Your task to perform on an android device: turn off location Image 0: 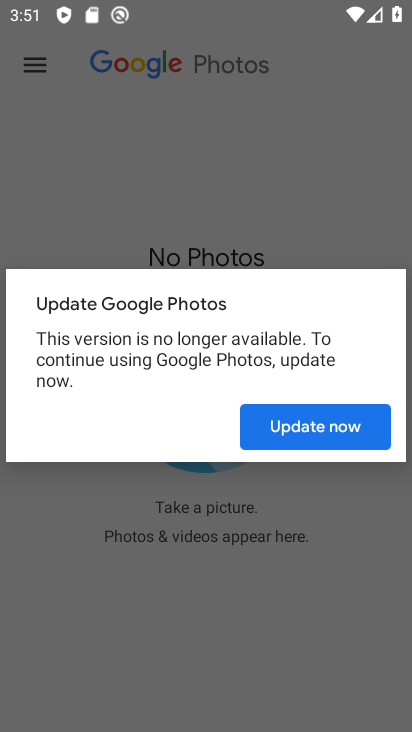
Step 0: press home button
Your task to perform on an android device: turn off location Image 1: 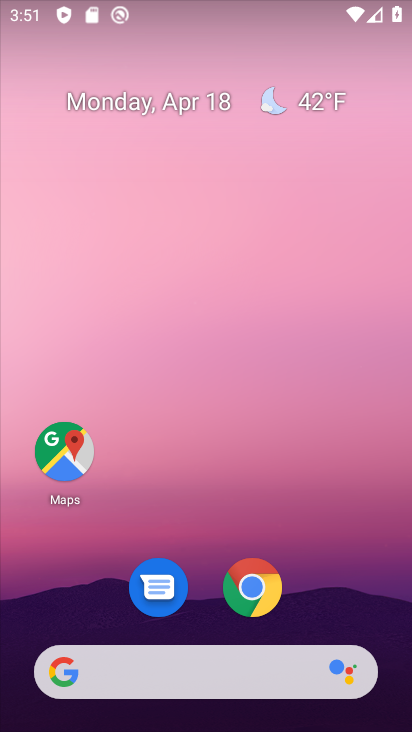
Step 1: drag from (211, 532) to (206, 65)
Your task to perform on an android device: turn off location Image 2: 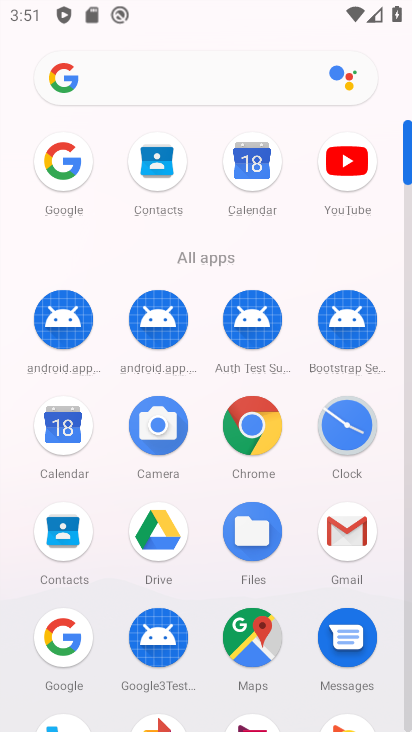
Step 2: drag from (223, 386) to (215, 257)
Your task to perform on an android device: turn off location Image 3: 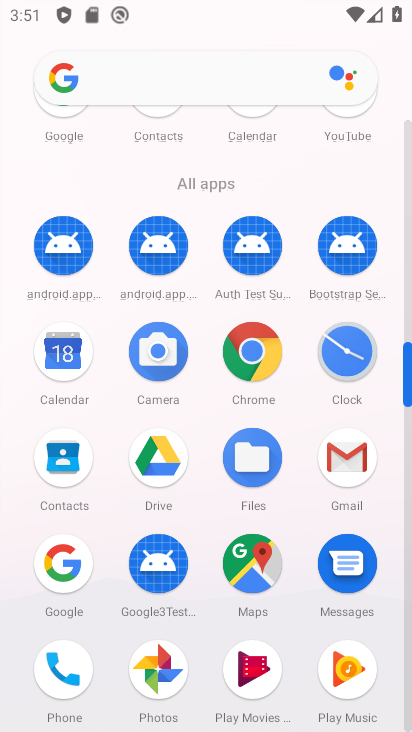
Step 3: drag from (205, 529) to (191, 252)
Your task to perform on an android device: turn off location Image 4: 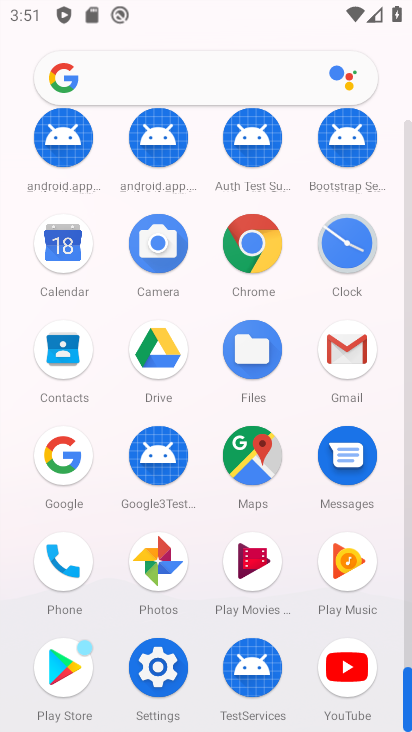
Step 4: click (169, 663)
Your task to perform on an android device: turn off location Image 5: 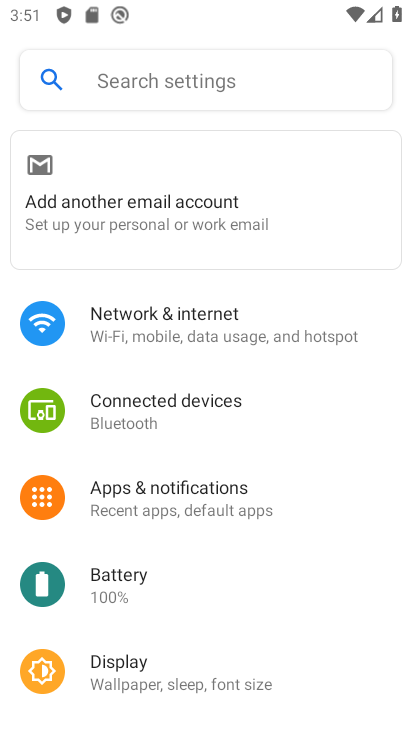
Step 5: drag from (258, 513) to (255, 239)
Your task to perform on an android device: turn off location Image 6: 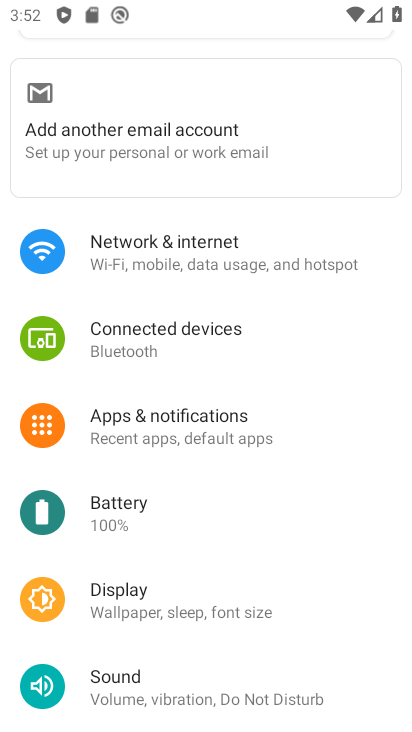
Step 6: drag from (269, 635) to (233, 197)
Your task to perform on an android device: turn off location Image 7: 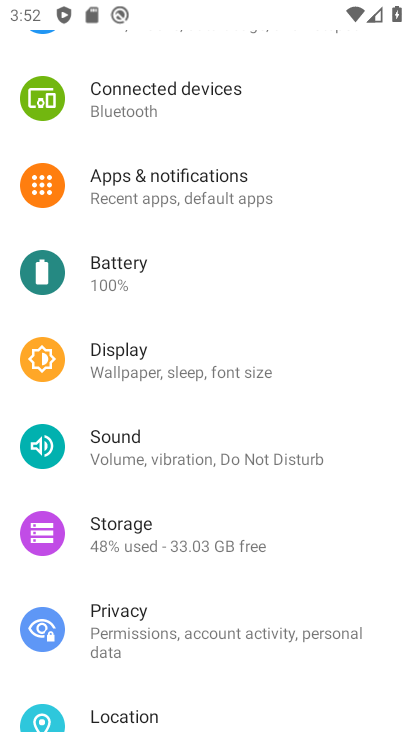
Step 7: click (196, 711)
Your task to perform on an android device: turn off location Image 8: 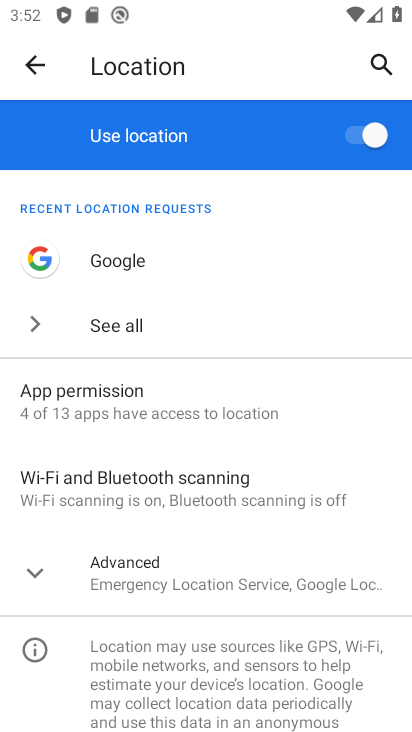
Step 8: click (376, 126)
Your task to perform on an android device: turn off location Image 9: 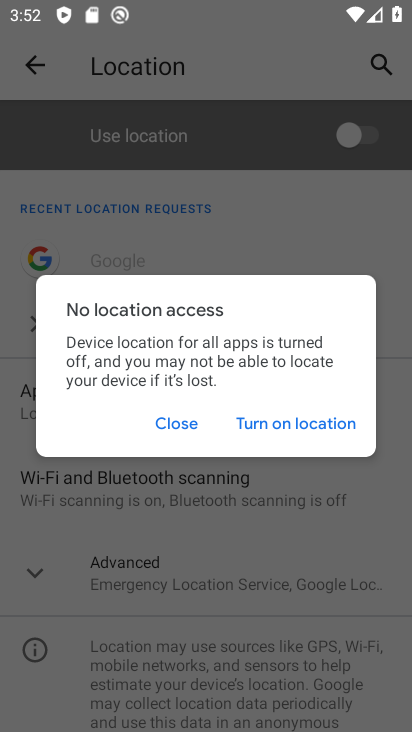
Step 9: task complete